Your task to perform on an android device: change alarm snooze length Image 0: 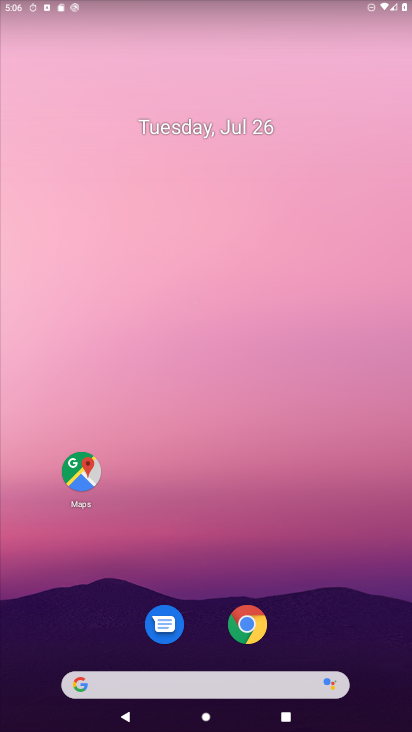
Step 0: drag from (118, 697) to (169, 91)
Your task to perform on an android device: change alarm snooze length Image 1: 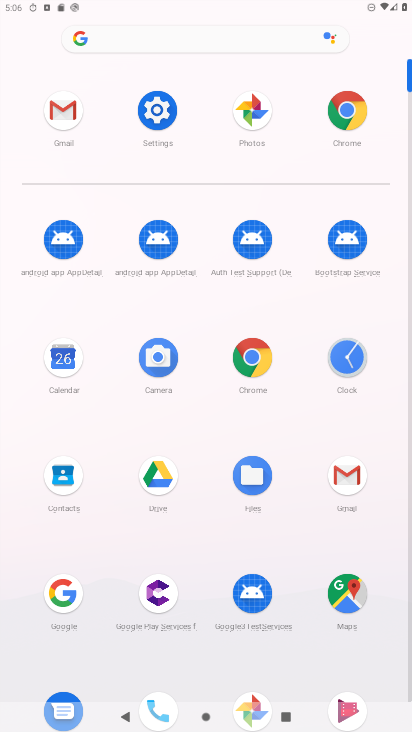
Step 1: click (337, 359)
Your task to perform on an android device: change alarm snooze length Image 2: 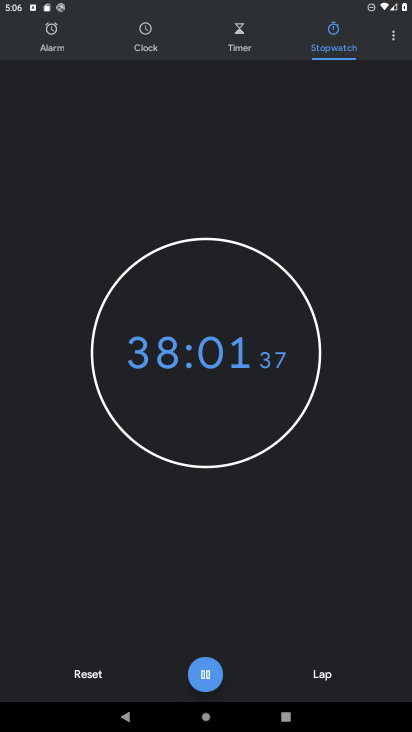
Step 2: click (392, 38)
Your task to perform on an android device: change alarm snooze length Image 3: 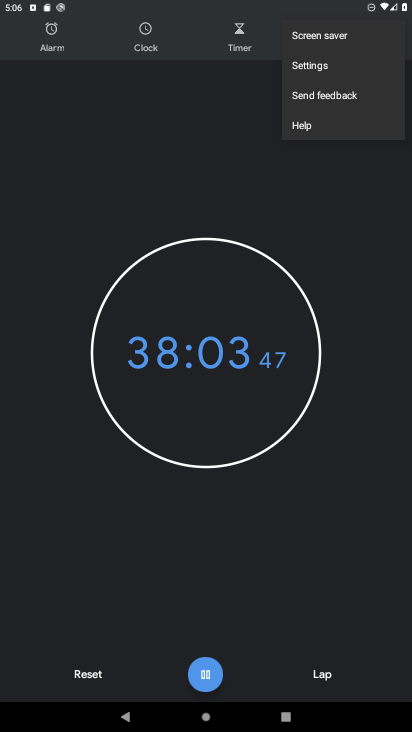
Step 3: click (311, 67)
Your task to perform on an android device: change alarm snooze length Image 4: 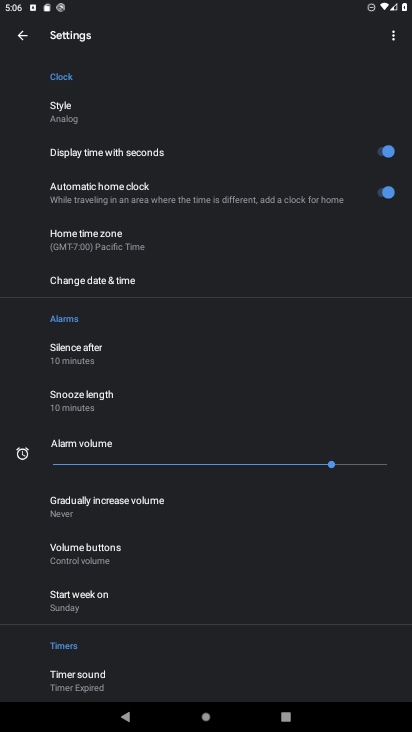
Step 4: click (74, 395)
Your task to perform on an android device: change alarm snooze length Image 5: 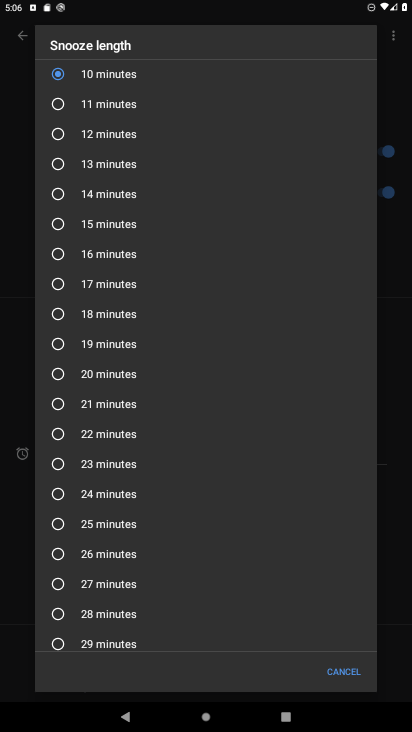
Step 5: click (400, 187)
Your task to perform on an android device: change alarm snooze length Image 6: 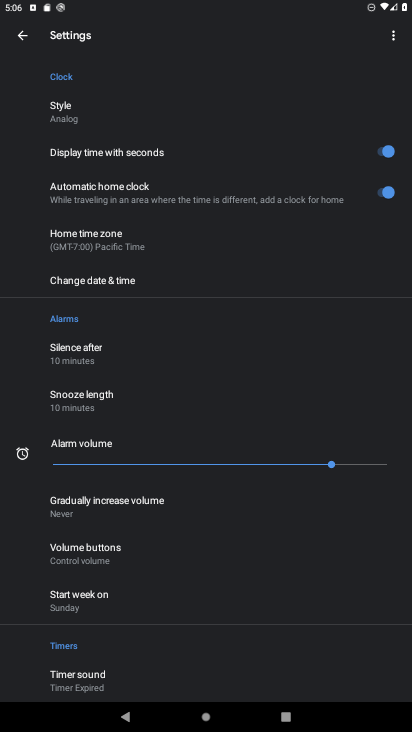
Step 6: click (99, 347)
Your task to perform on an android device: change alarm snooze length Image 7: 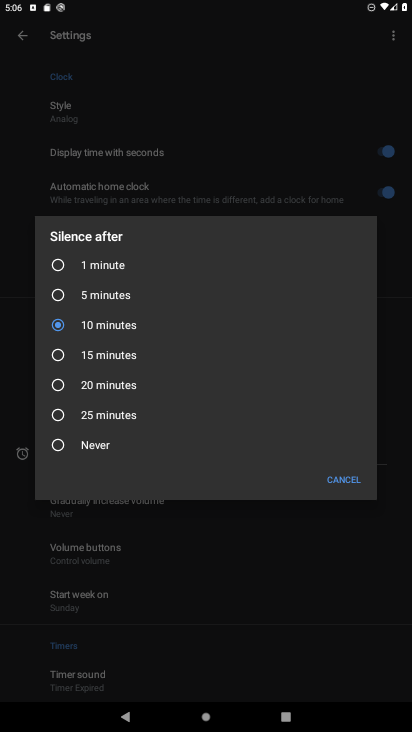
Step 7: click (60, 299)
Your task to perform on an android device: change alarm snooze length Image 8: 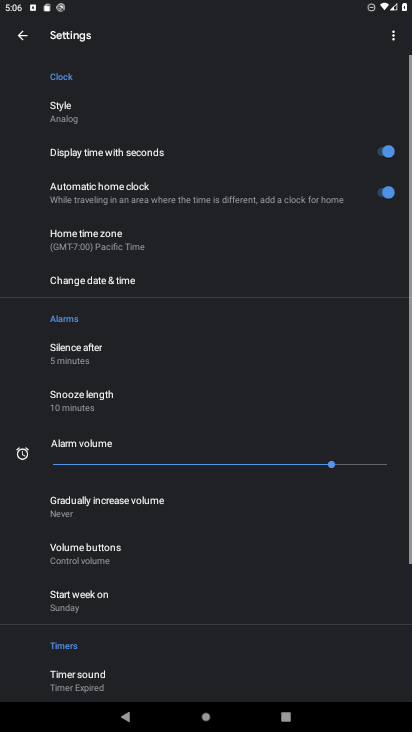
Step 8: task complete